Your task to perform on an android device: Open my contact list Image 0: 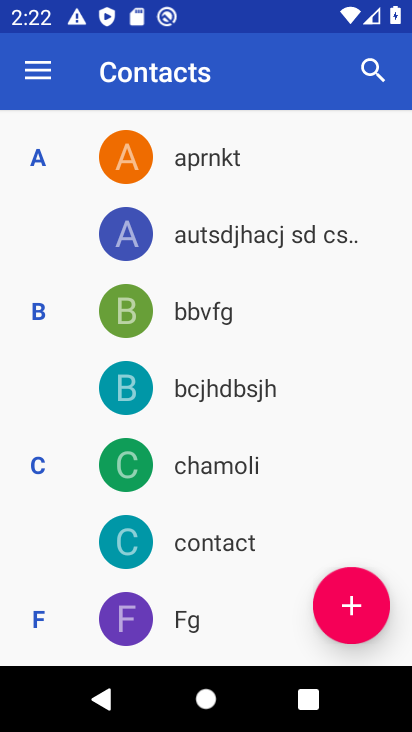
Step 0: press home button
Your task to perform on an android device: Open my contact list Image 1: 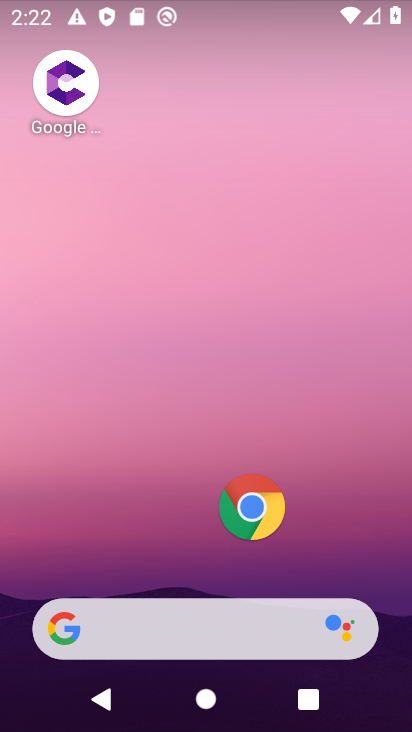
Step 1: drag from (148, 509) to (178, 148)
Your task to perform on an android device: Open my contact list Image 2: 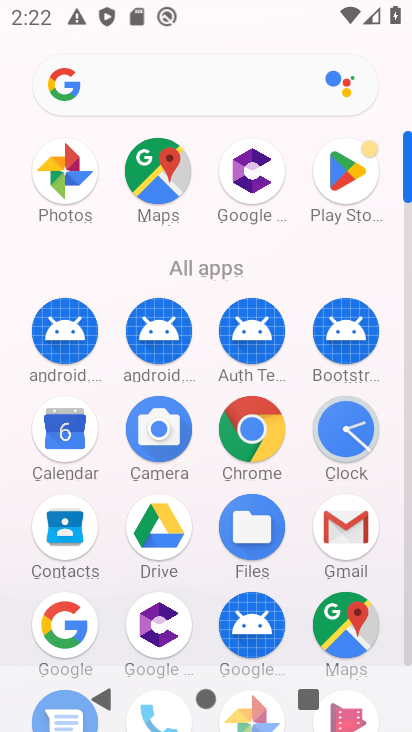
Step 2: click (68, 559)
Your task to perform on an android device: Open my contact list Image 3: 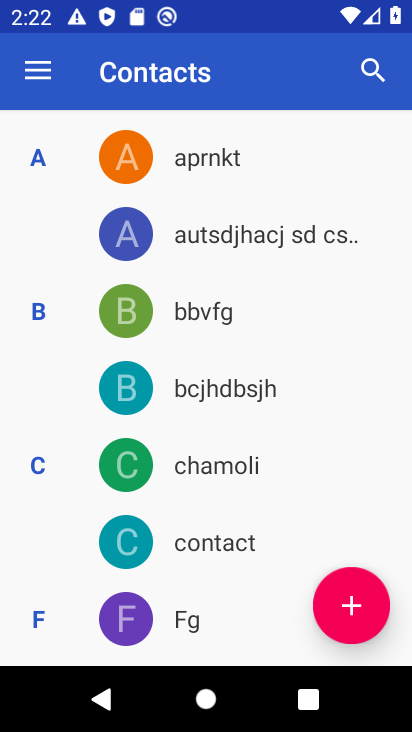
Step 3: task complete